Your task to perform on an android device: turn pop-ups on in chrome Image 0: 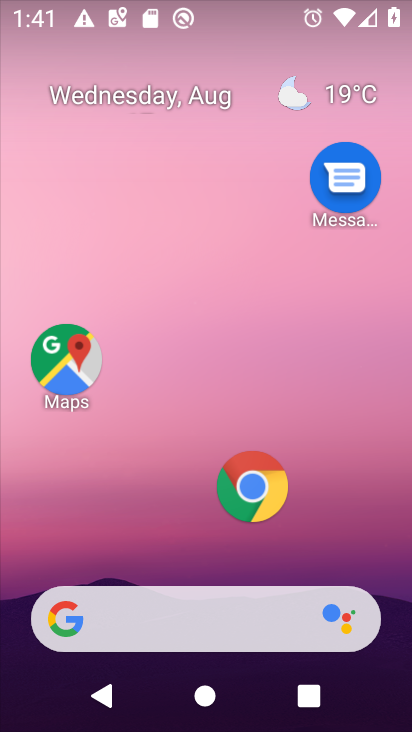
Step 0: click (244, 478)
Your task to perform on an android device: turn pop-ups on in chrome Image 1: 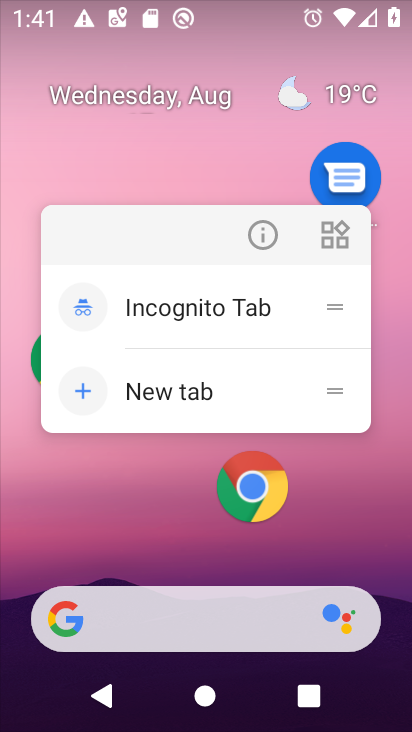
Step 1: click (278, 480)
Your task to perform on an android device: turn pop-ups on in chrome Image 2: 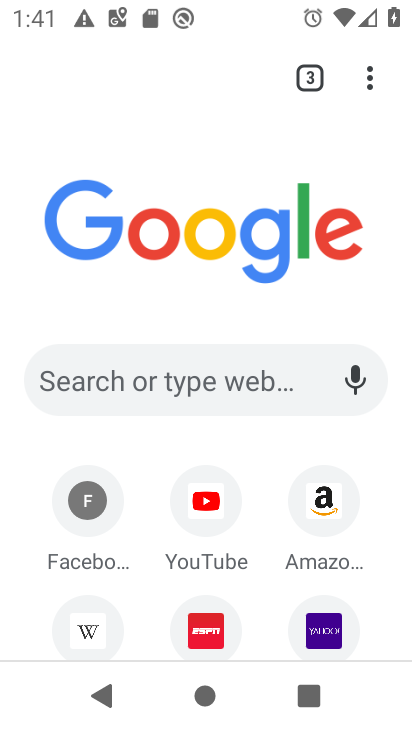
Step 2: drag from (370, 71) to (116, 536)
Your task to perform on an android device: turn pop-ups on in chrome Image 3: 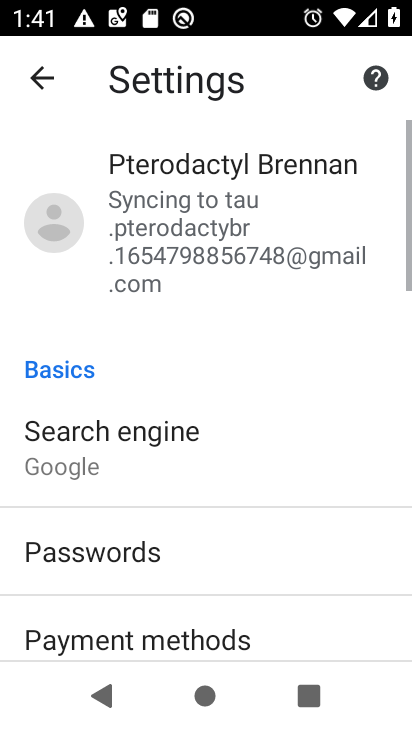
Step 3: drag from (100, 641) to (235, 15)
Your task to perform on an android device: turn pop-ups on in chrome Image 4: 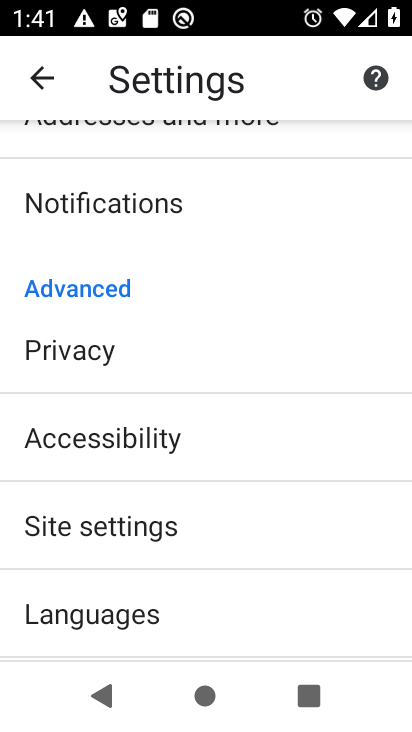
Step 4: click (54, 547)
Your task to perform on an android device: turn pop-ups on in chrome Image 5: 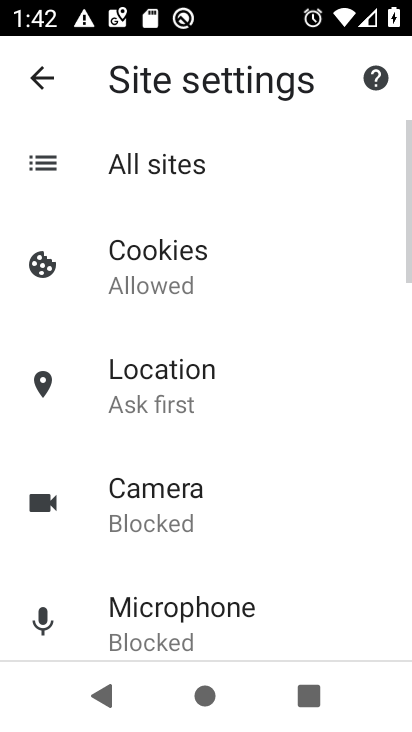
Step 5: drag from (251, 607) to (340, 124)
Your task to perform on an android device: turn pop-ups on in chrome Image 6: 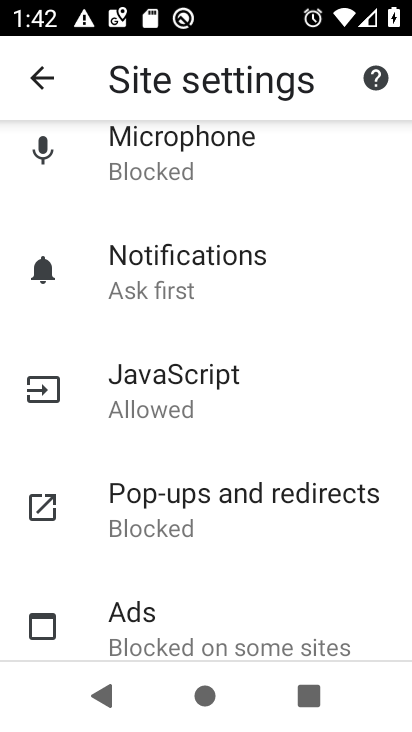
Step 6: click (233, 497)
Your task to perform on an android device: turn pop-ups on in chrome Image 7: 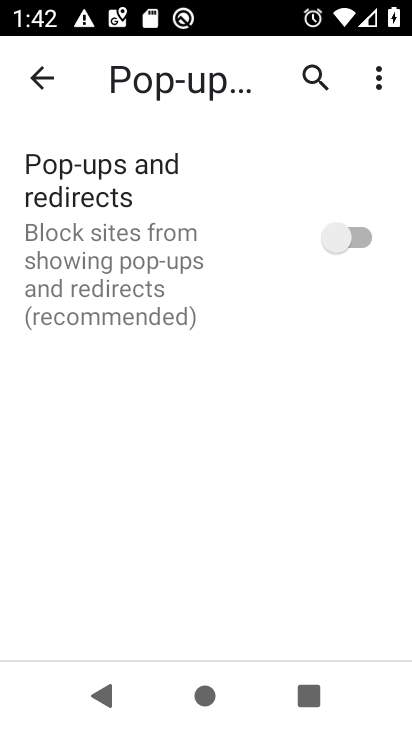
Step 7: click (343, 235)
Your task to perform on an android device: turn pop-ups on in chrome Image 8: 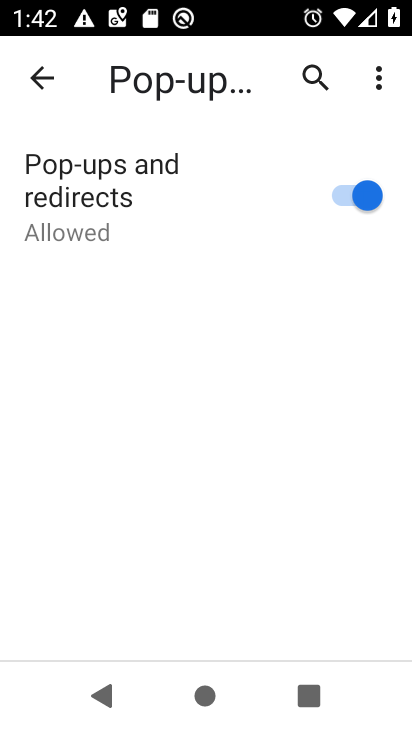
Step 8: task complete